Your task to perform on an android device: delete a single message in the gmail app Image 0: 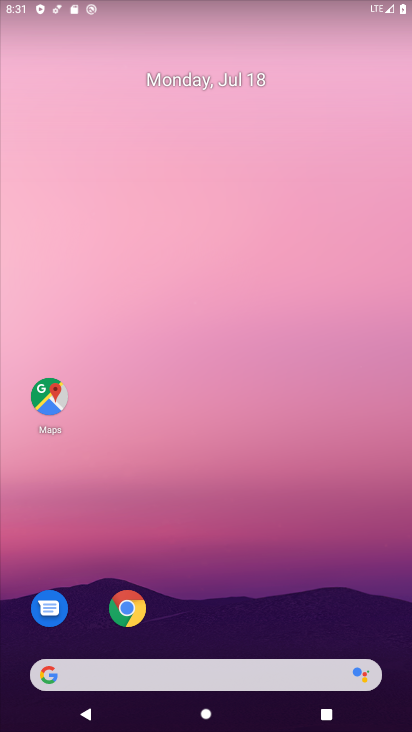
Step 0: drag from (375, 618) to (338, 173)
Your task to perform on an android device: delete a single message in the gmail app Image 1: 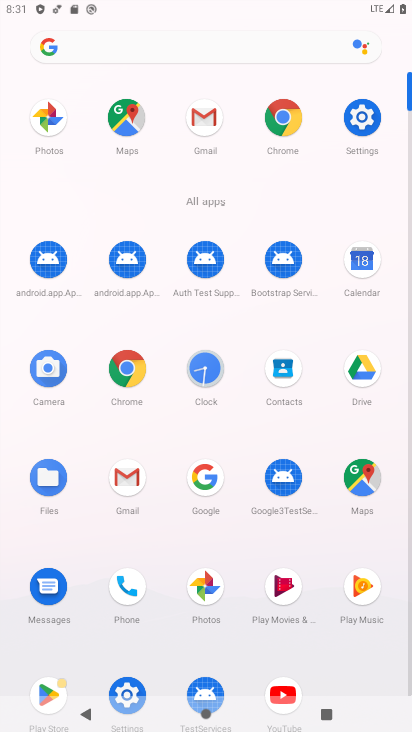
Step 1: click (217, 114)
Your task to perform on an android device: delete a single message in the gmail app Image 2: 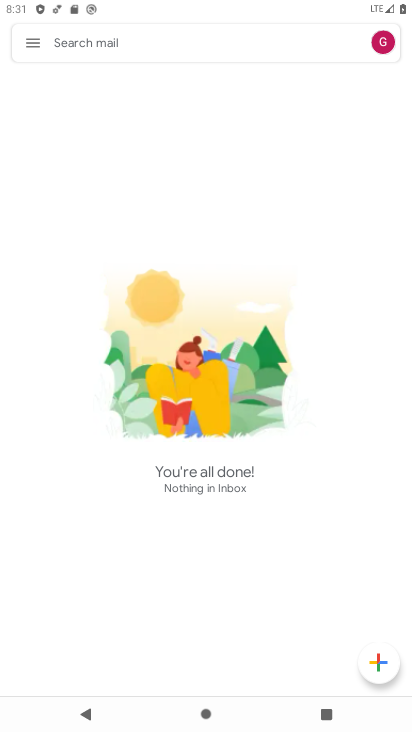
Step 2: task complete